Your task to perform on an android device: toggle show notifications on the lock screen Image 0: 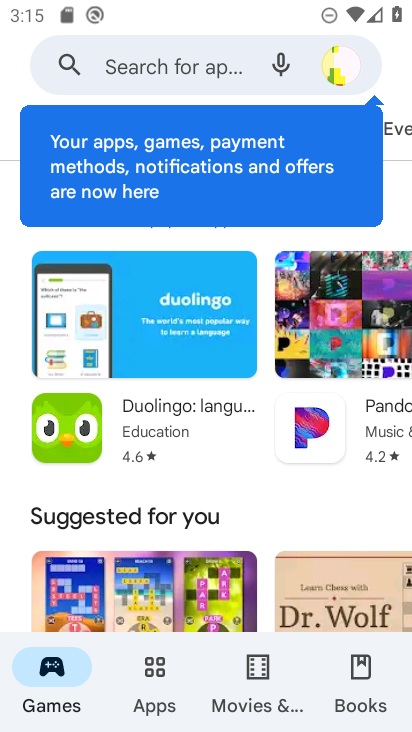
Step 0: press home button
Your task to perform on an android device: toggle show notifications on the lock screen Image 1: 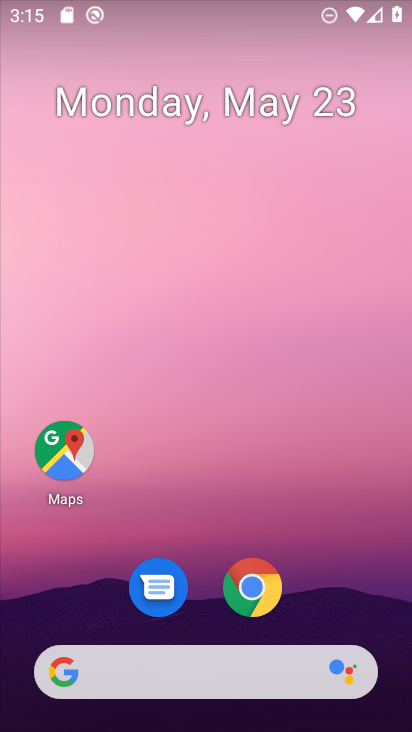
Step 1: drag from (222, 613) to (258, 145)
Your task to perform on an android device: toggle show notifications on the lock screen Image 2: 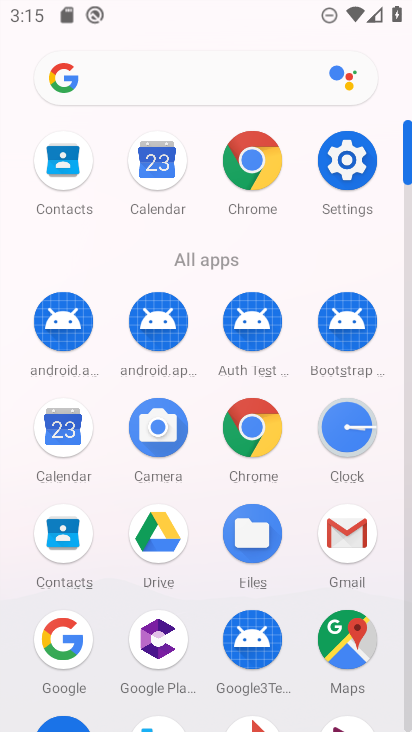
Step 2: click (364, 174)
Your task to perform on an android device: toggle show notifications on the lock screen Image 3: 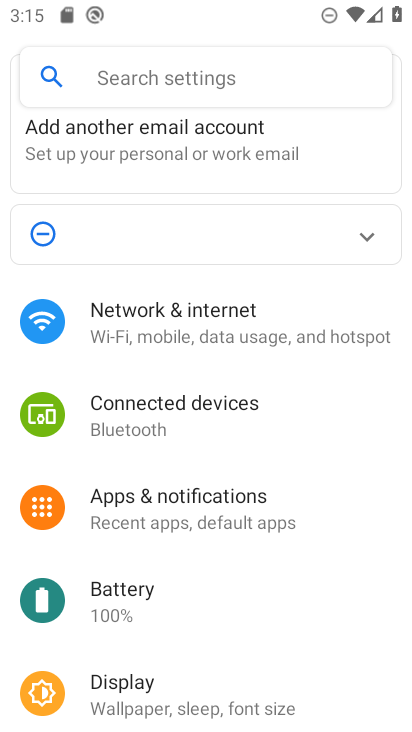
Step 3: drag from (238, 530) to (251, 427)
Your task to perform on an android device: toggle show notifications on the lock screen Image 4: 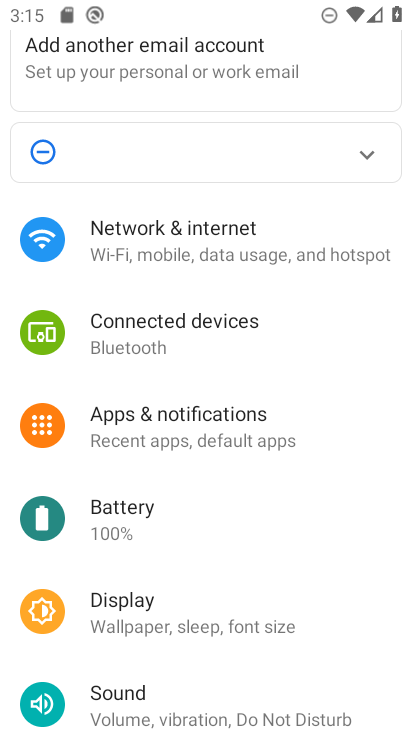
Step 4: click (198, 423)
Your task to perform on an android device: toggle show notifications on the lock screen Image 5: 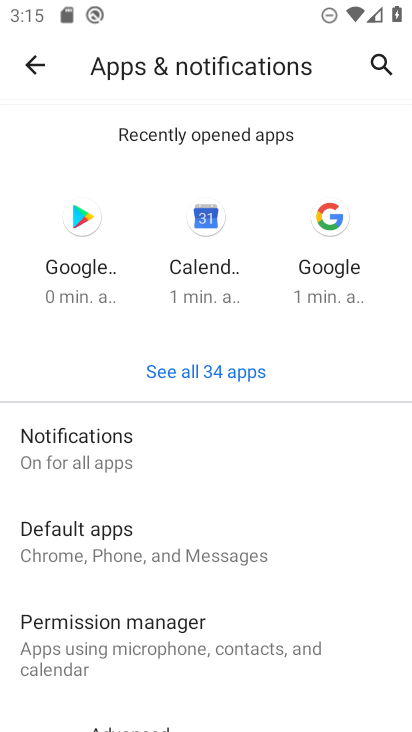
Step 5: click (112, 454)
Your task to perform on an android device: toggle show notifications on the lock screen Image 6: 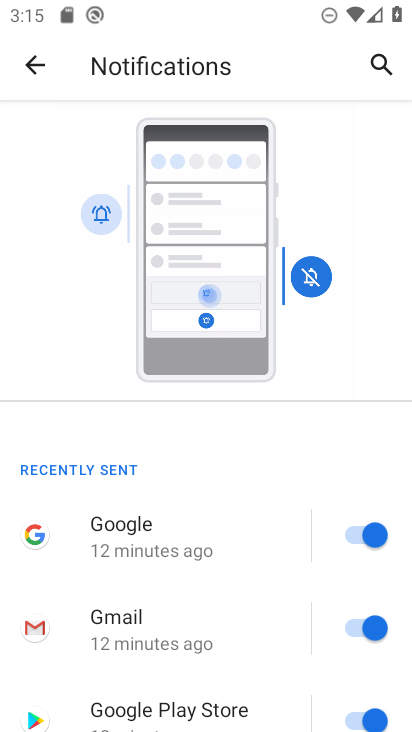
Step 6: drag from (143, 600) to (153, 363)
Your task to perform on an android device: toggle show notifications on the lock screen Image 7: 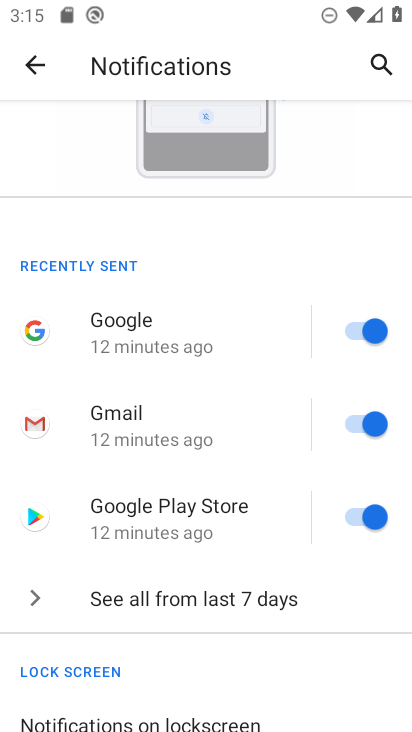
Step 7: drag from (178, 652) to (242, 274)
Your task to perform on an android device: toggle show notifications on the lock screen Image 8: 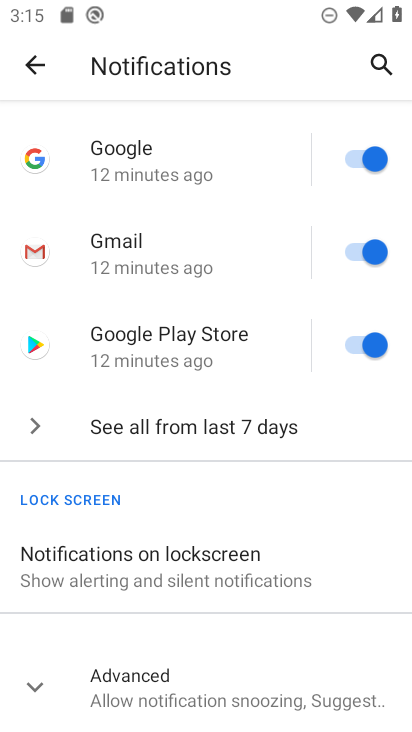
Step 8: click (134, 578)
Your task to perform on an android device: toggle show notifications on the lock screen Image 9: 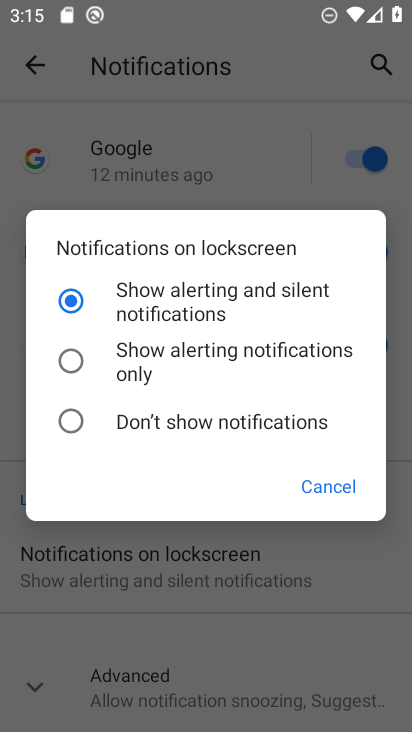
Step 9: click (151, 414)
Your task to perform on an android device: toggle show notifications on the lock screen Image 10: 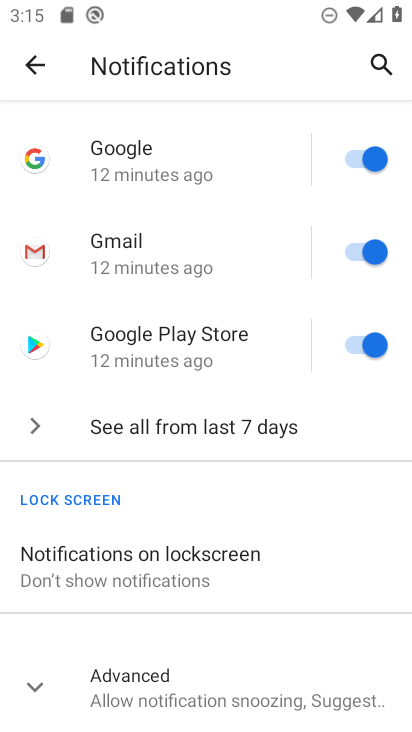
Step 10: task complete